Your task to perform on an android device: What's the weather going to be tomorrow? Image 0: 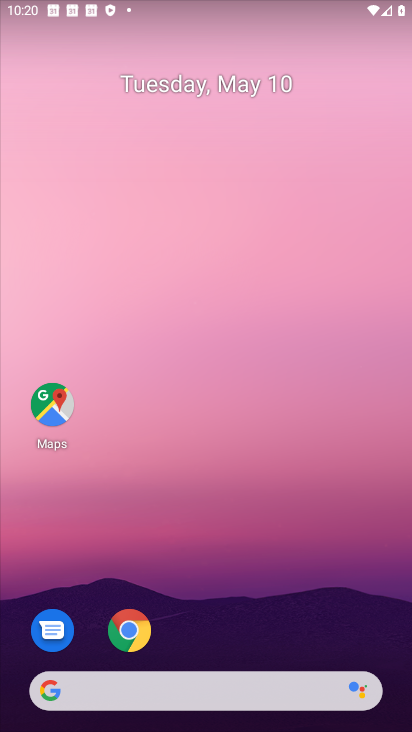
Step 0: click (115, 698)
Your task to perform on an android device: What's the weather going to be tomorrow? Image 1: 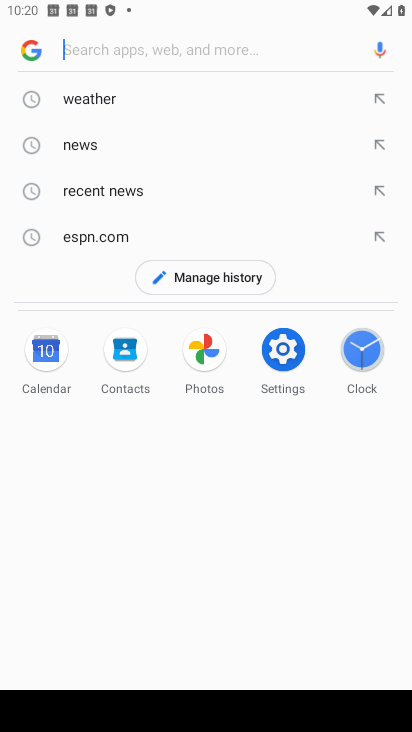
Step 1: type "What's the weather going to be tomorrow?"
Your task to perform on an android device: What's the weather going to be tomorrow? Image 2: 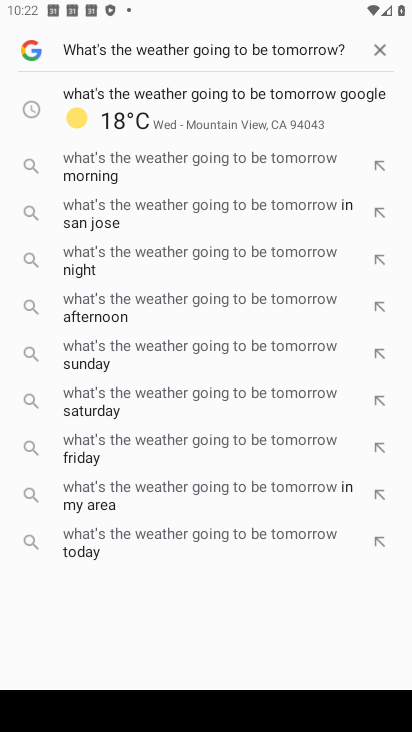
Step 2: click (320, 106)
Your task to perform on an android device: What's the weather going to be tomorrow? Image 3: 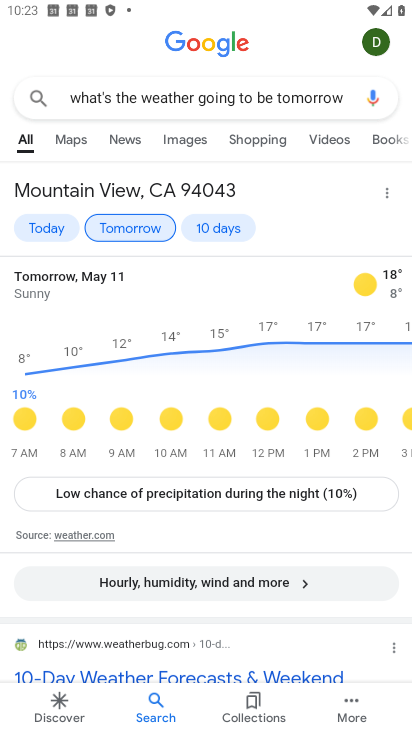
Step 3: task complete